Your task to perform on an android device: change the clock display to analog Image 0: 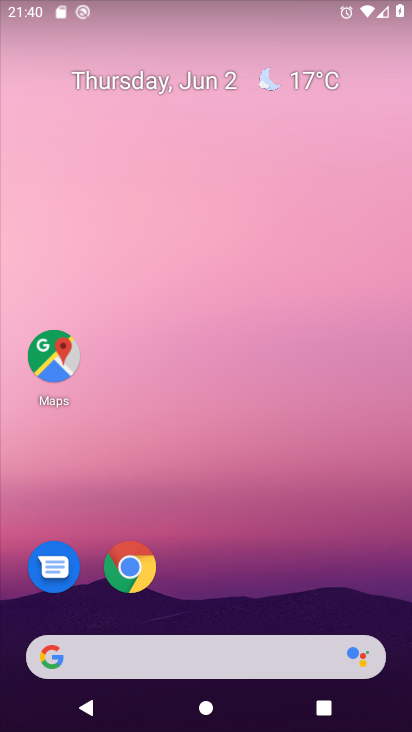
Step 0: drag from (223, 611) to (260, 48)
Your task to perform on an android device: change the clock display to analog Image 1: 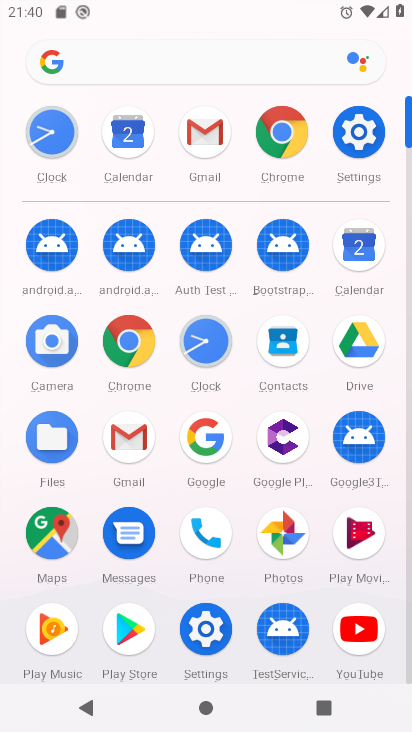
Step 1: click (206, 355)
Your task to perform on an android device: change the clock display to analog Image 2: 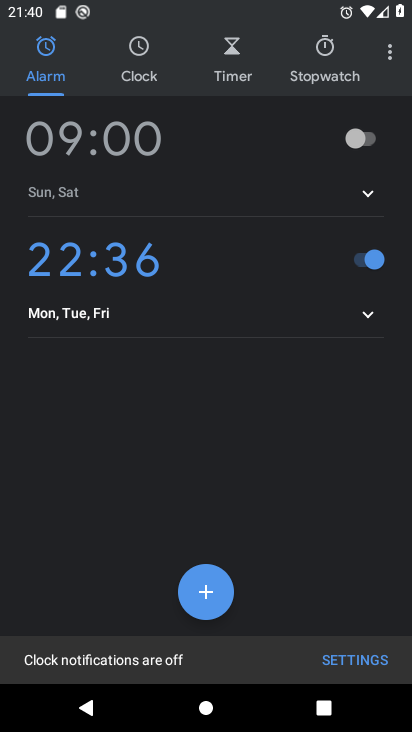
Step 2: click (401, 59)
Your task to perform on an android device: change the clock display to analog Image 3: 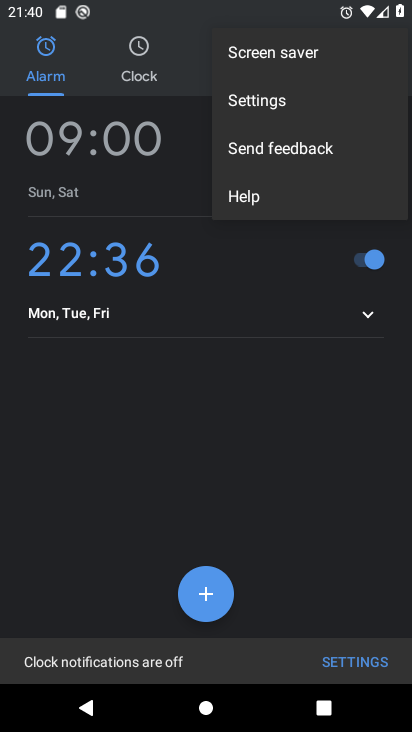
Step 3: click (266, 93)
Your task to perform on an android device: change the clock display to analog Image 4: 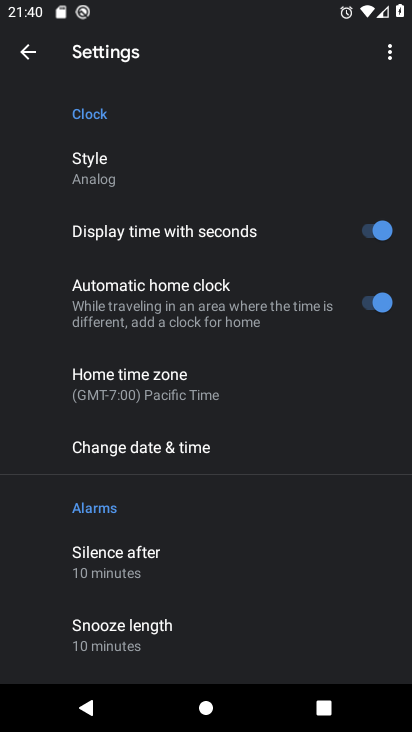
Step 4: task complete